Your task to perform on an android device: toggle priority inbox in the gmail app Image 0: 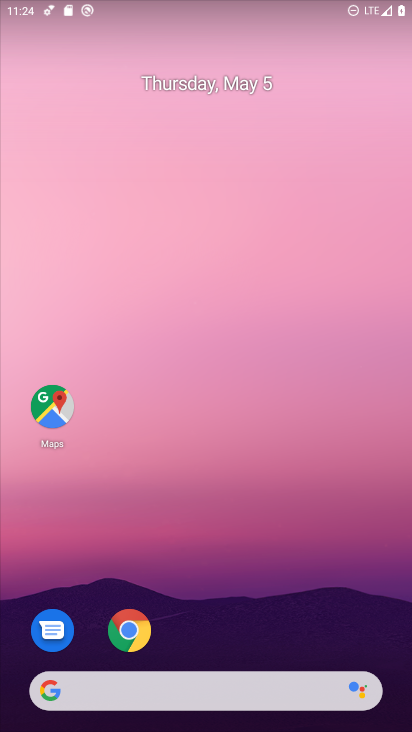
Step 0: drag from (285, 471) to (350, 54)
Your task to perform on an android device: toggle priority inbox in the gmail app Image 1: 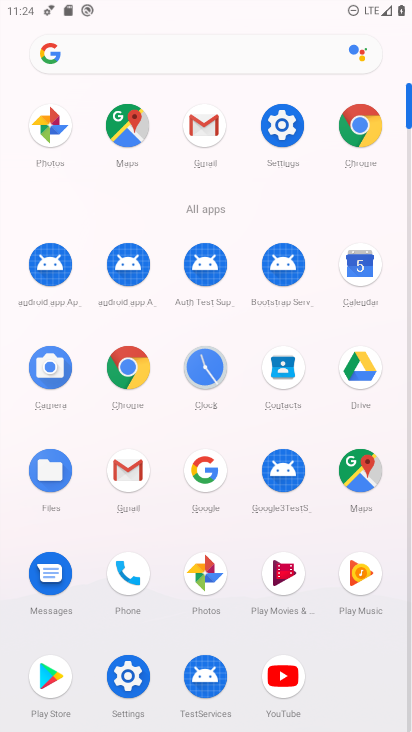
Step 1: click (226, 125)
Your task to perform on an android device: toggle priority inbox in the gmail app Image 2: 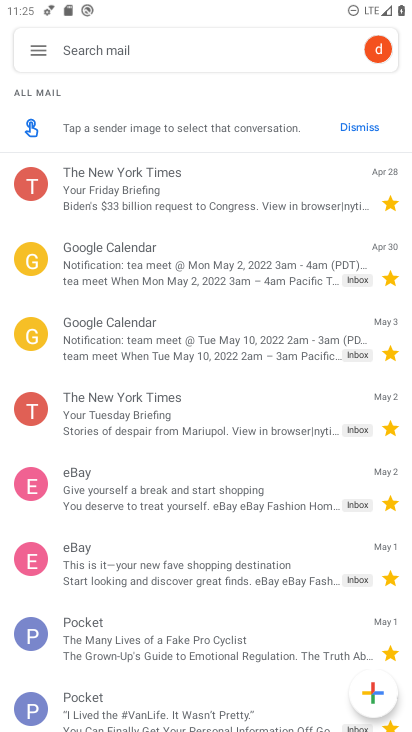
Step 2: click (38, 52)
Your task to perform on an android device: toggle priority inbox in the gmail app Image 3: 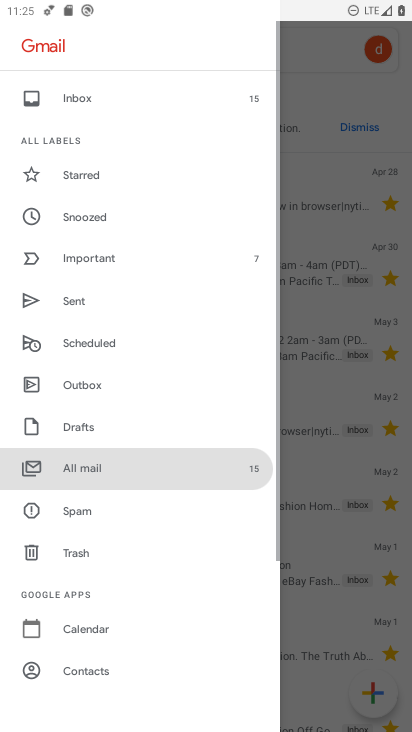
Step 3: drag from (102, 668) to (182, 202)
Your task to perform on an android device: toggle priority inbox in the gmail app Image 4: 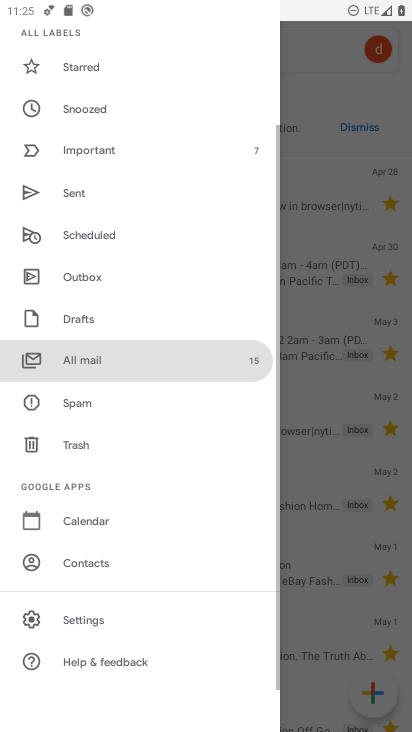
Step 4: click (89, 626)
Your task to perform on an android device: toggle priority inbox in the gmail app Image 5: 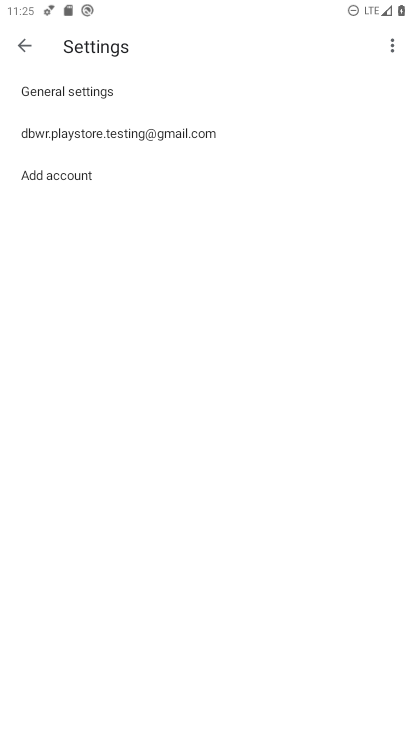
Step 5: click (169, 136)
Your task to perform on an android device: toggle priority inbox in the gmail app Image 6: 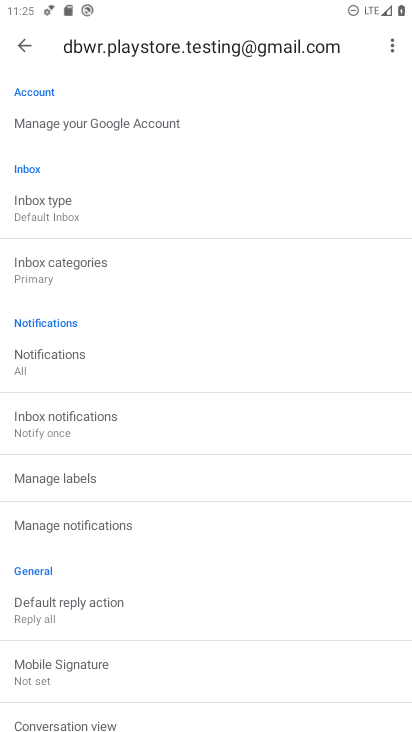
Step 6: click (63, 206)
Your task to perform on an android device: toggle priority inbox in the gmail app Image 7: 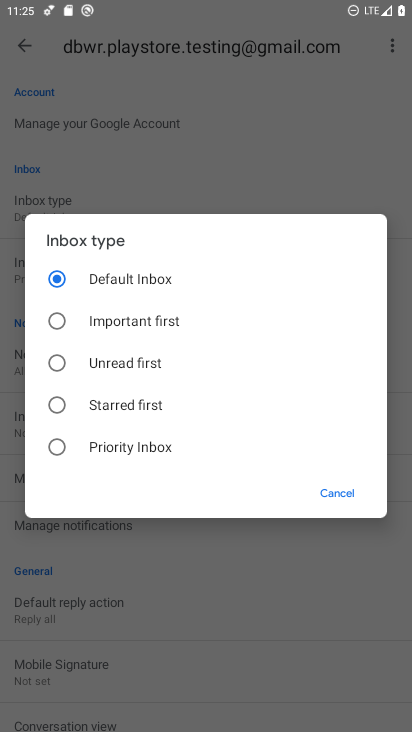
Step 7: click (146, 444)
Your task to perform on an android device: toggle priority inbox in the gmail app Image 8: 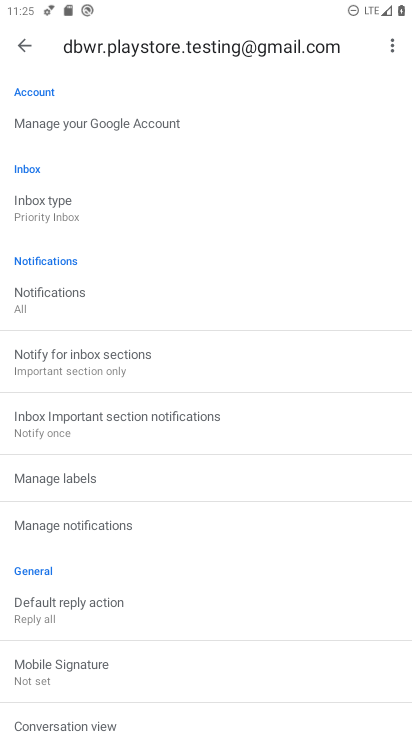
Step 8: task complete